Your task to perform on an android device: Open Google Image 0: 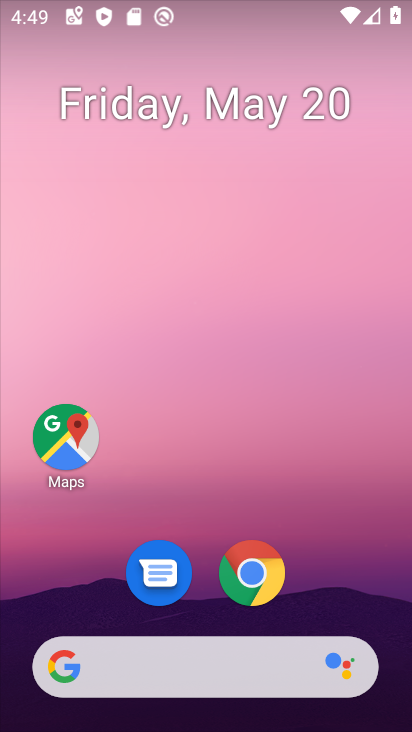
Step 0: click (258, 570)
Your task to perform on an android device: Open Google Image 1: 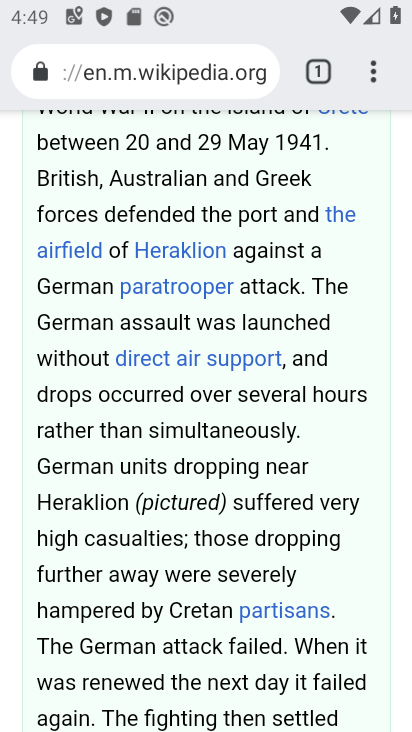
Step 1: task complete